Your task to perform on an android device: Check the news Image 0: 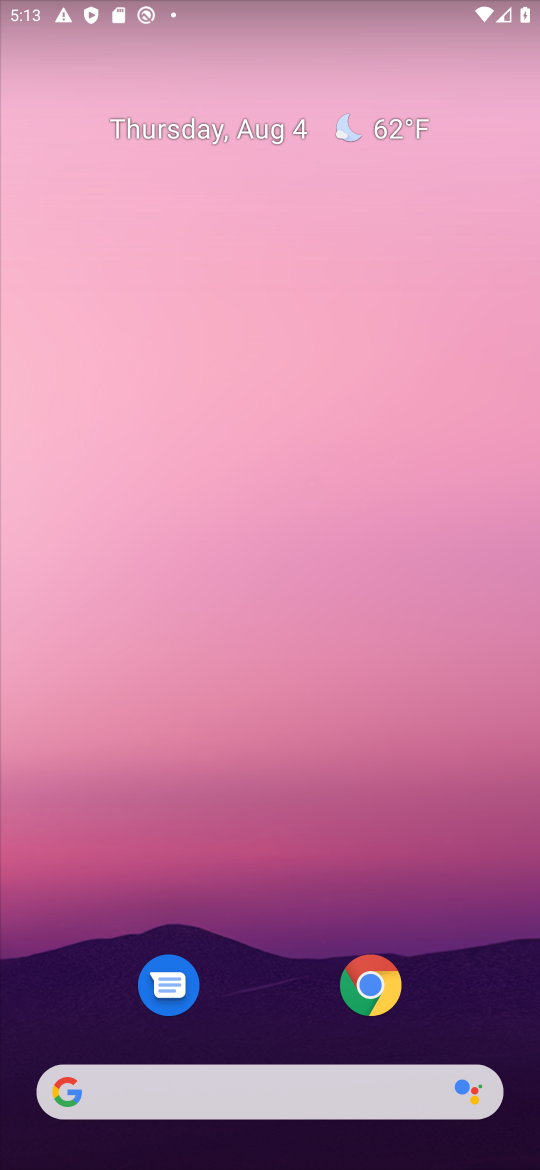
Step 0: click (380, 984)
Your task to perform on an android device: Check the news Image 1: 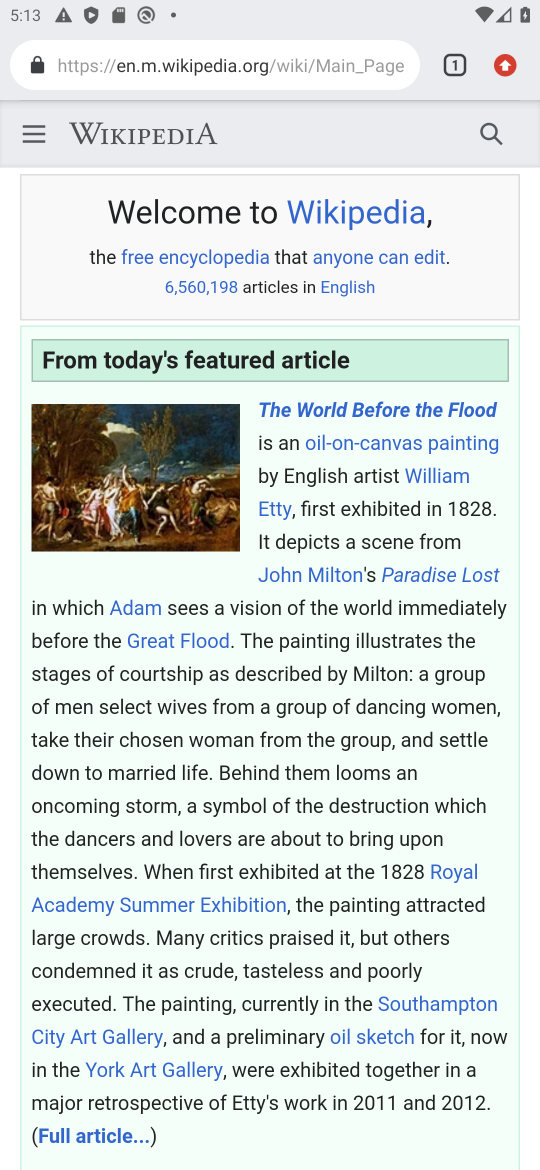
Step 1: click (250, 69)
Your task to perform on an android device: Check the news Image 2: 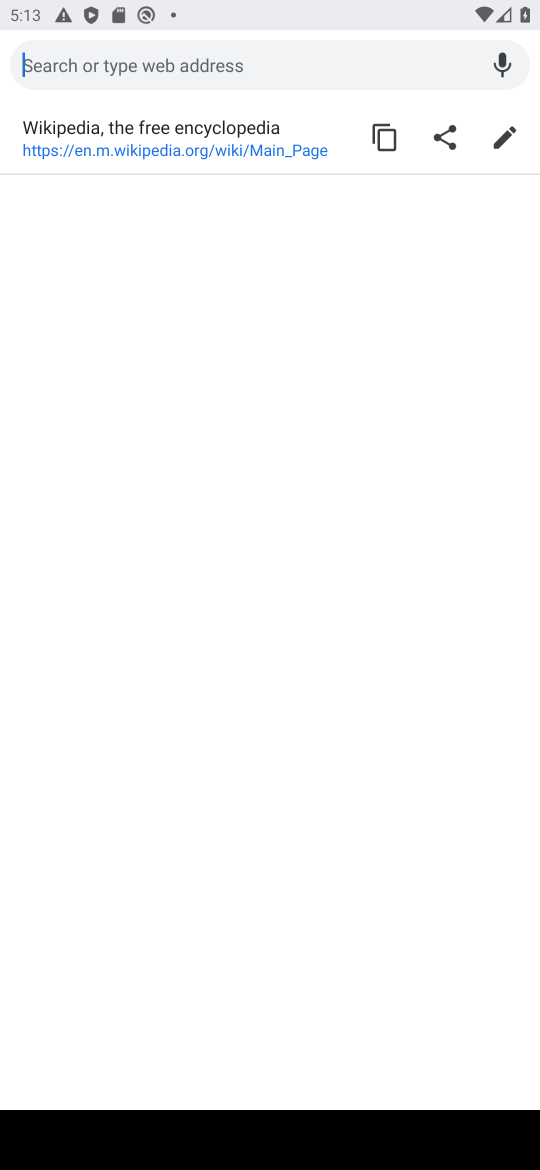
Step 2: type "news"
Your task to perform on an android device: Check the news Image 3: 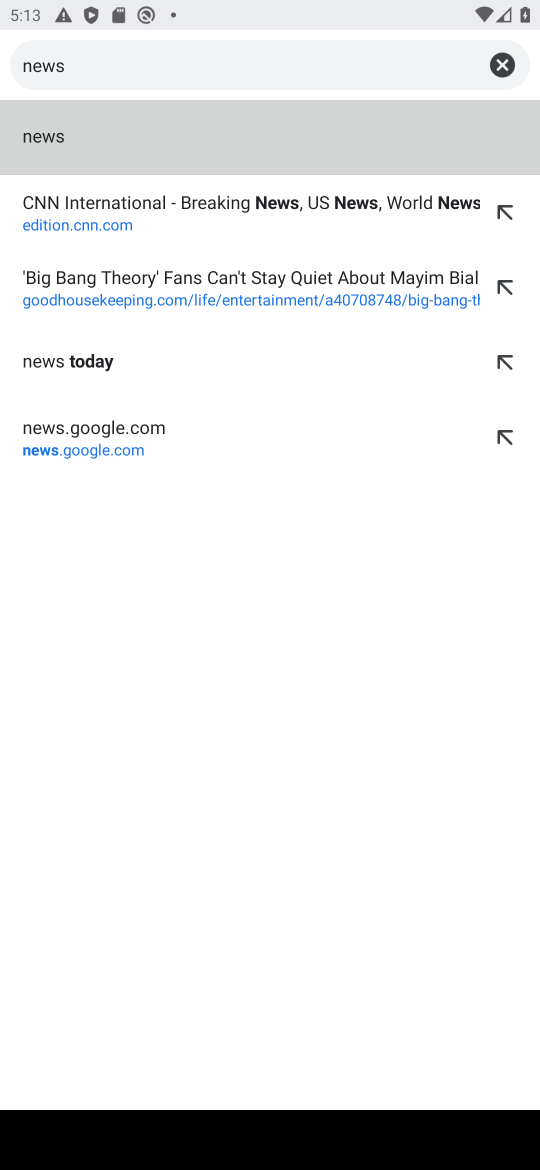
Step 3: click (140, 115)
Your task to perform on an android device: Check the news Image 4: 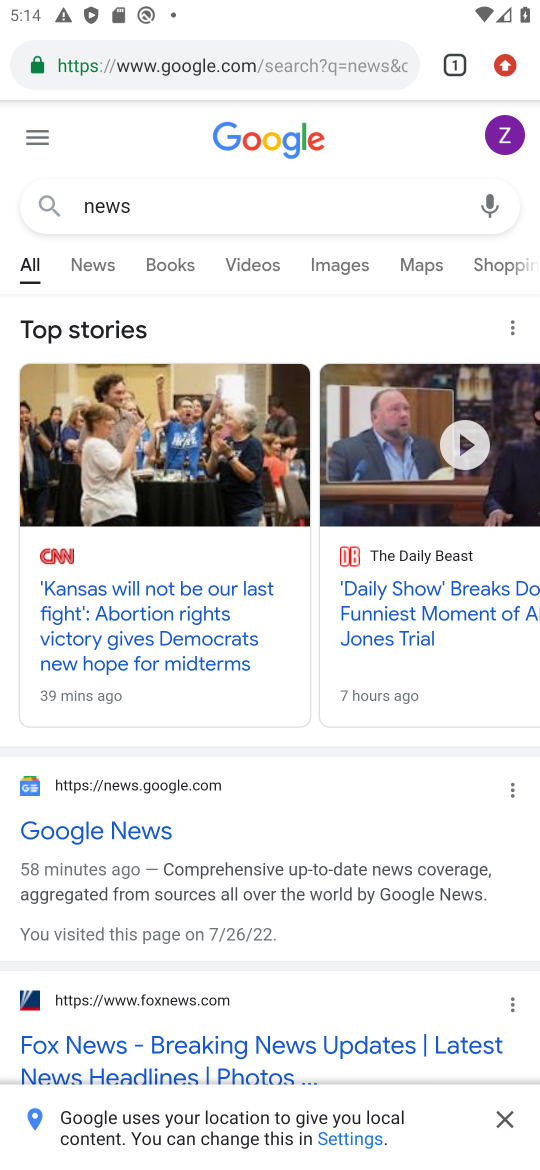
Step 4: task complete